Your task to perform on an android device: Go to display settings Image 0: 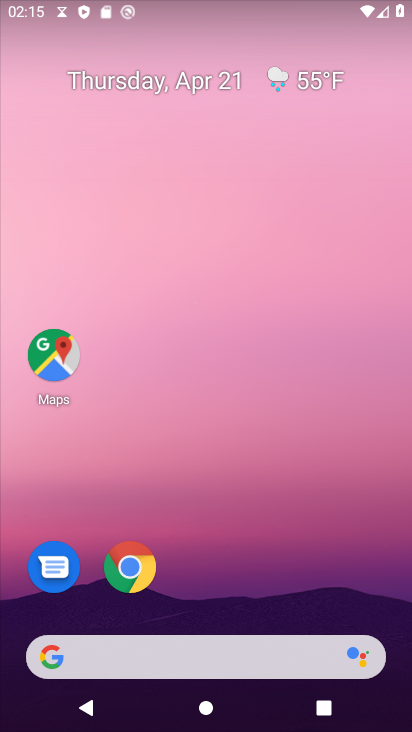
Step 0: drag from (210, 664) to (291, 82)
Your task to perform on an android device: Go to display settings Image 1: 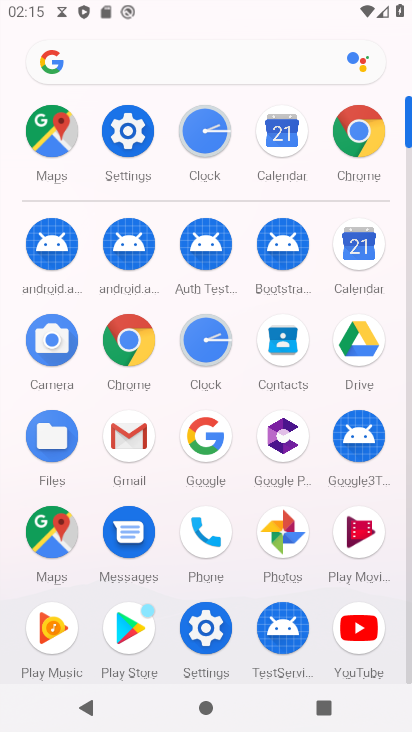
Step 1: click (130, 125)
Your task to perform on an android device: Go to display settings Image 2: 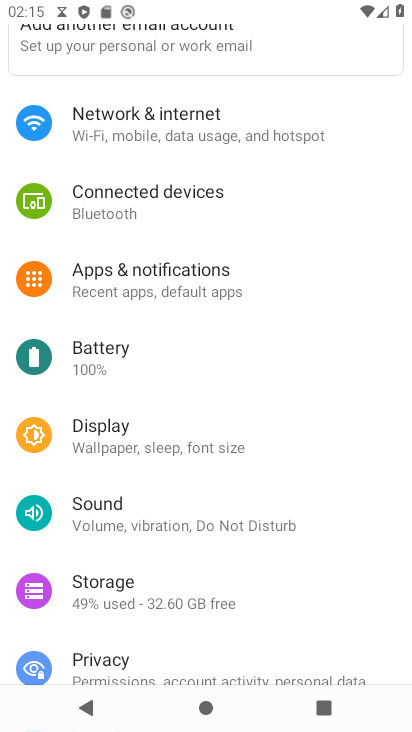
Step 2: click (128, 438)
Your task to perform on an android device: Go to display settings Image 3: 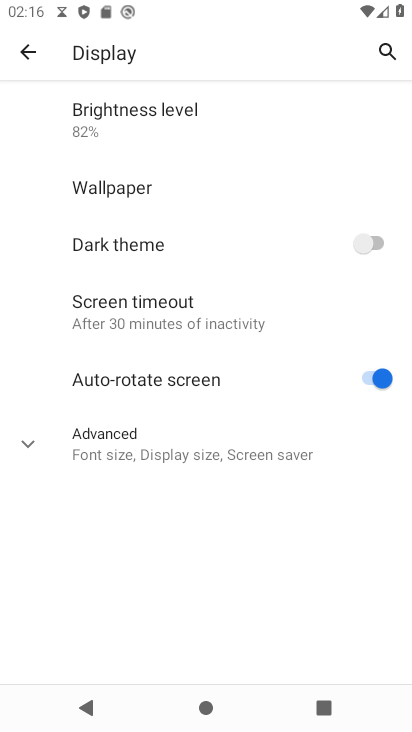
Step 3: task complete